Your task to perform on an android device: Search for pizza restaurants on Maps Image 0: 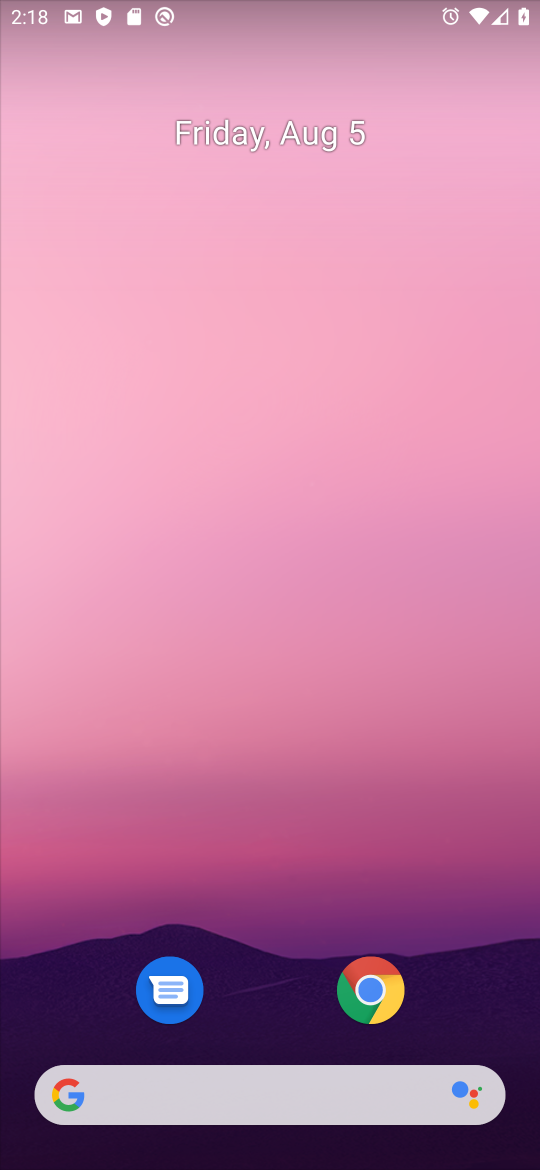
Step 0: drag from (327, 1076) to (189, 38)
Your task to perform on an android device: Search for pizza restaurants on Maps Image 1: 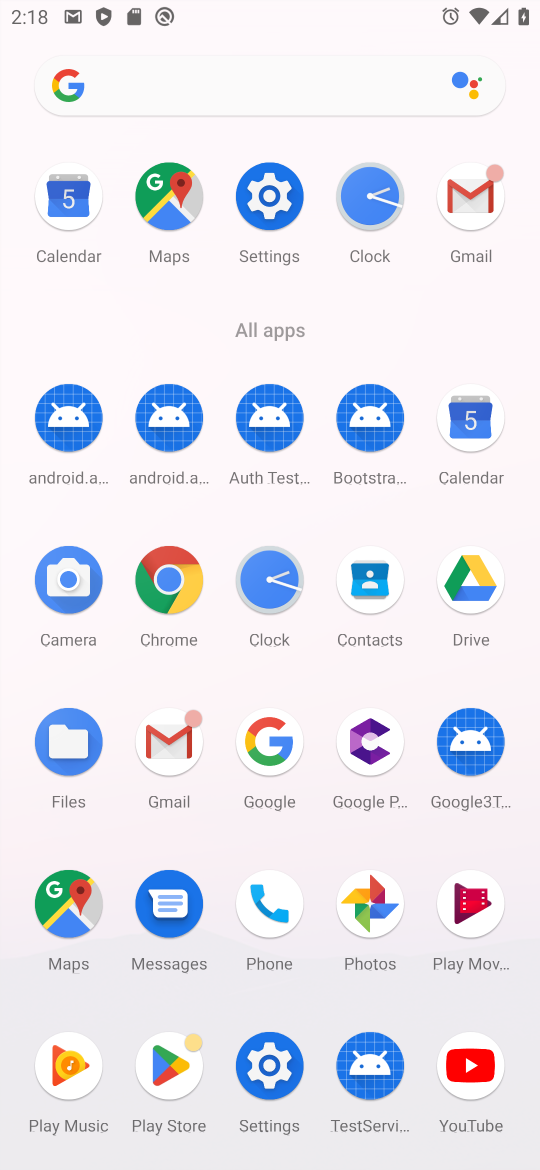
Step 1: click (77, 909)
Your task to perform on an android device: Search for pizza restaurants on Maps Image 2: 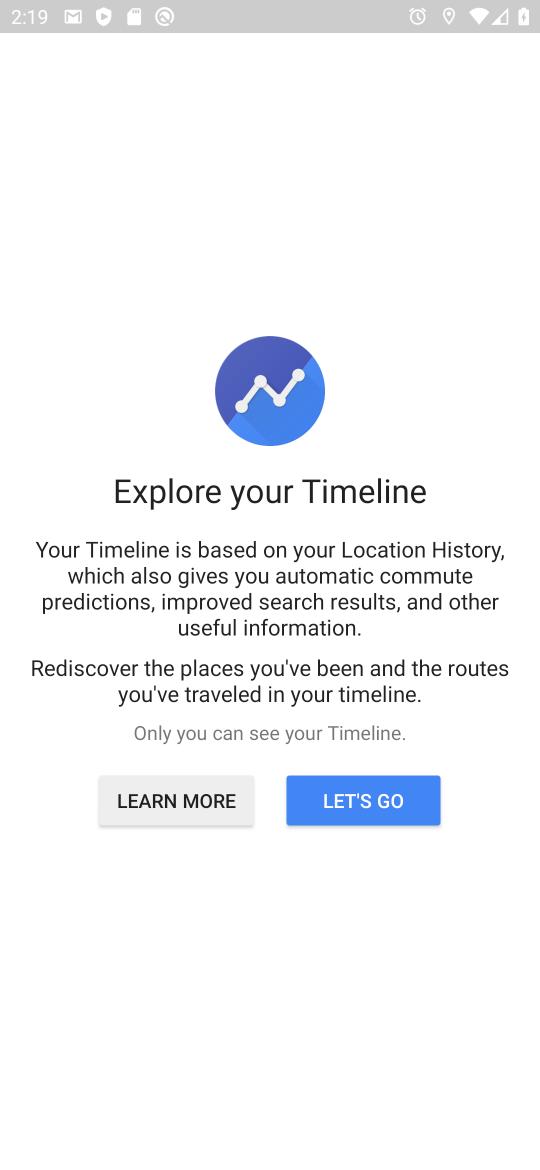
Step 2: click (330, 802)
Your task to perform on an android device: Search for pizza restaurants on Maps Image 3: 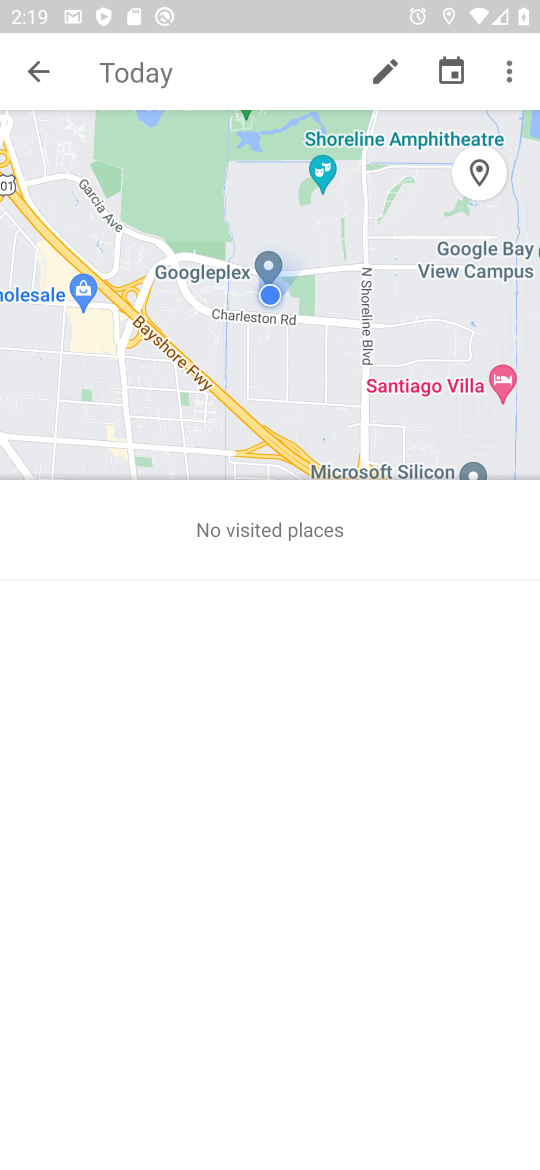
Step 3: click (56, 67)
Your task to perform on an android device: Search for pizza restaurants on Maps Image 4: 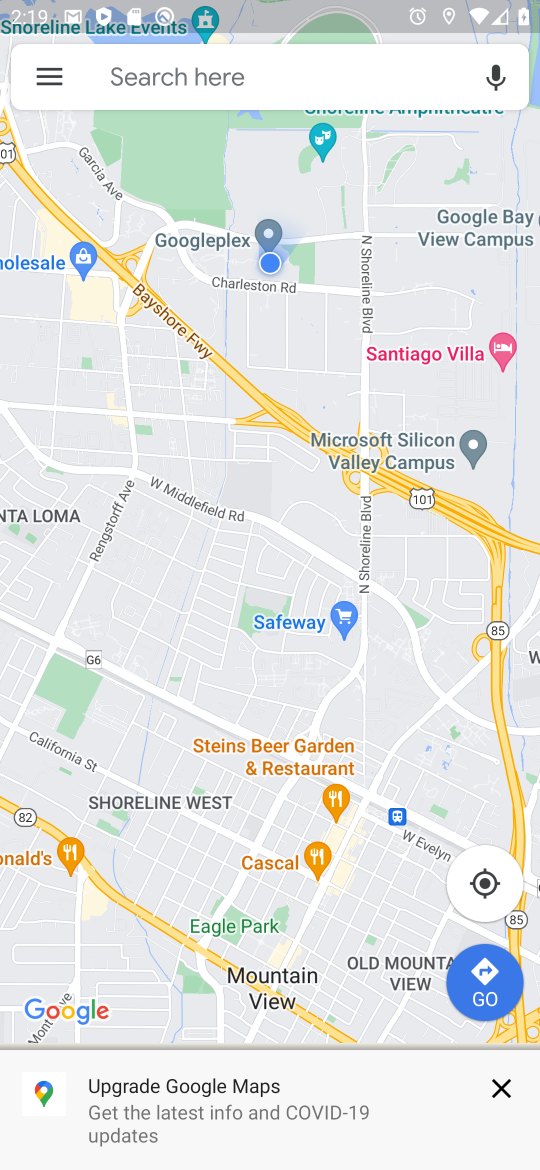
Step 4: click (268, 78)
Your task to perform on an android device: Search for pizza restaurants on Maps Image 5: 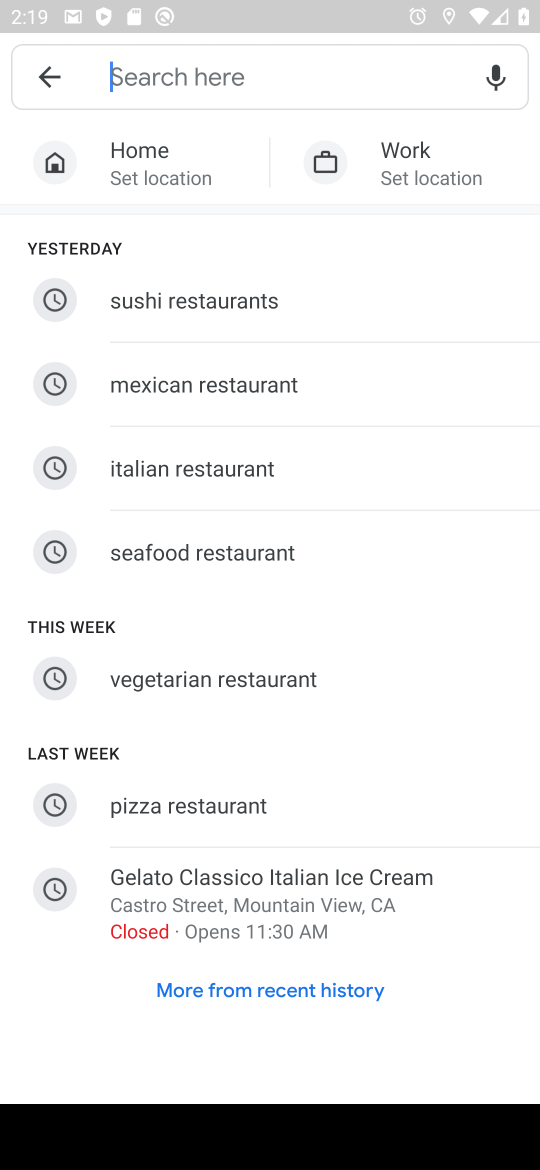
Step 5: click (292, 803)
Your task to perform on an android device: Search for pizza restaurants on Maps Image 6: 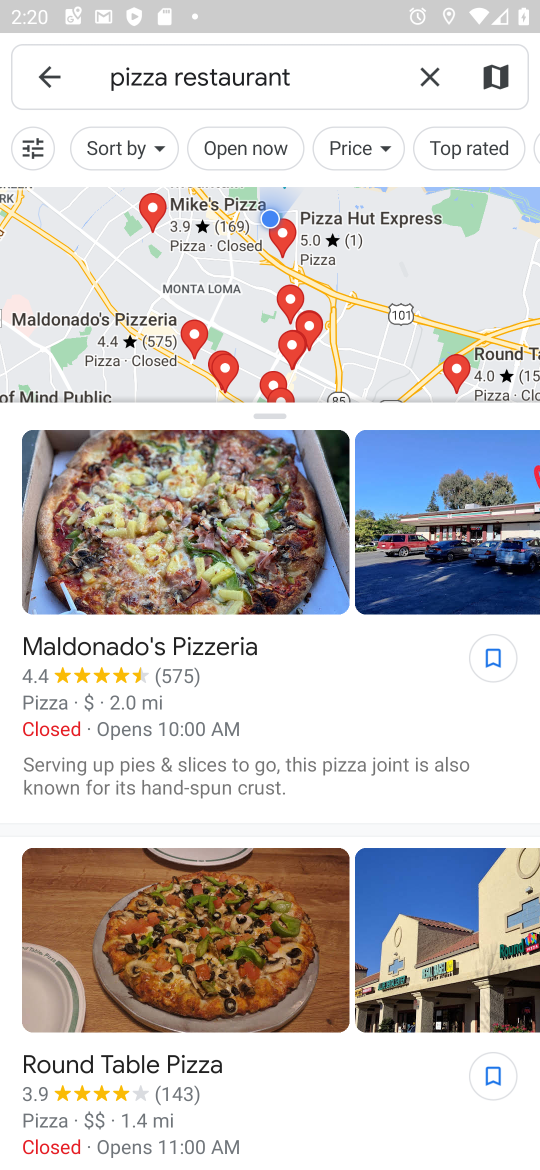
Step 6: task complete